Your task to perform on an android device: Open settings Image 0: 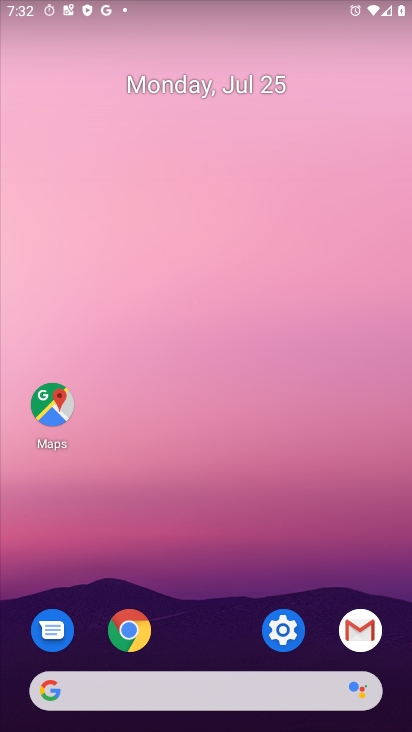
Step 0: click (293, 617)
Your task to perform on an android device: Open settings Image 1: 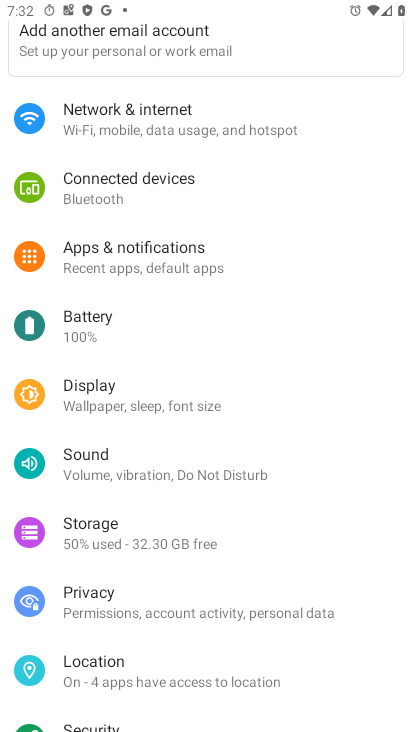
Step 1: task complete